Your task to perform on an android device: Check the weather Image 0: 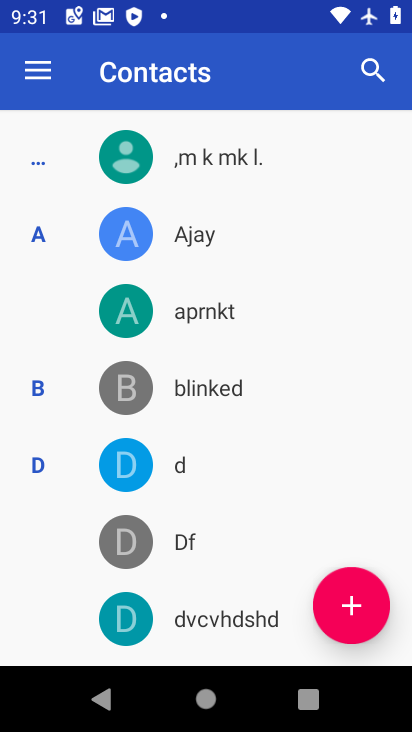
Step 0: press home button
Your task to perform on an android device: Check the weather Image 1: 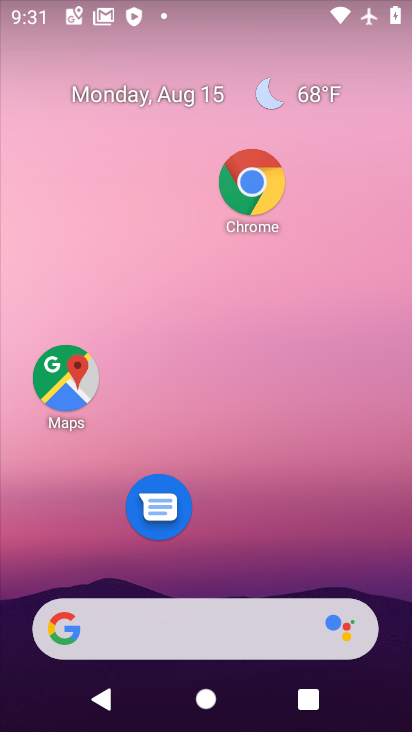
Step 1: click (243, 604)
Your task to perform on an android device: Check the weather Image 2: 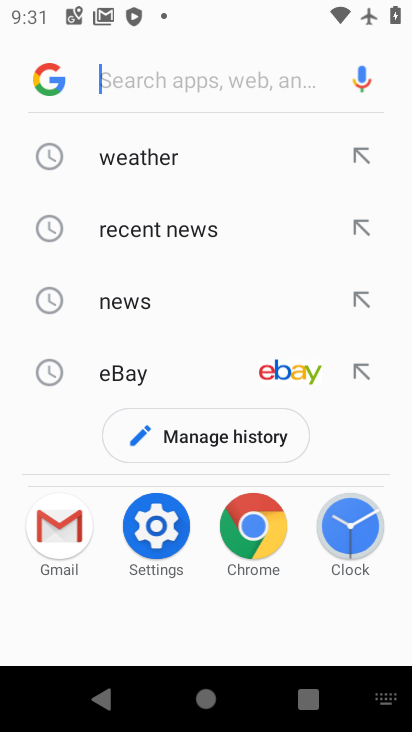
Step 2: click (178, 146)
Your task to perform on an android device: Check the weather Image 3: 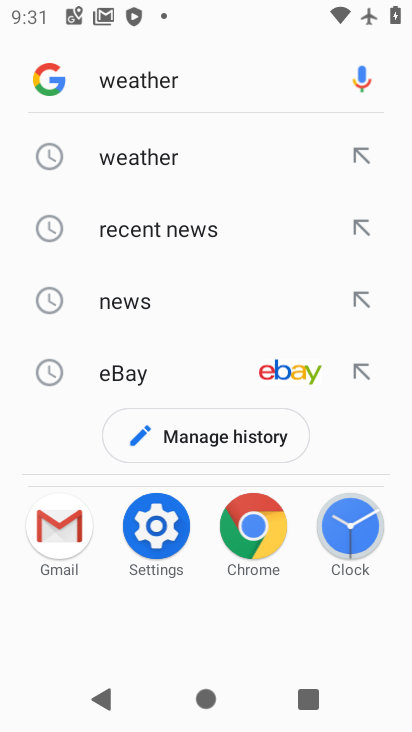
Step 3: task complete